Your task to perform on an android device: Check the news Image 0: 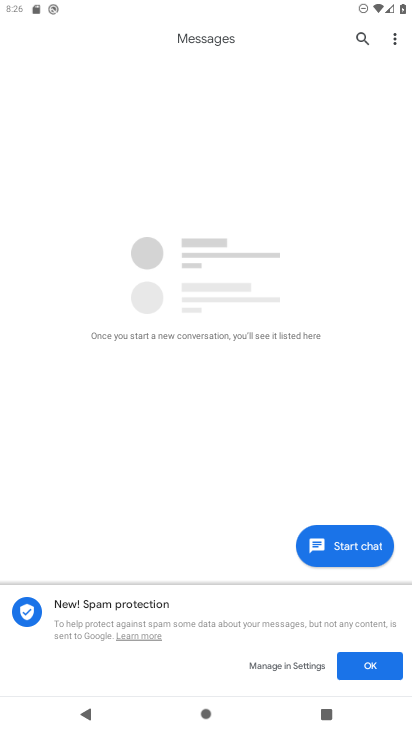
Step 0: press home button
Your task to perform on an android device: Check the news Image 1: 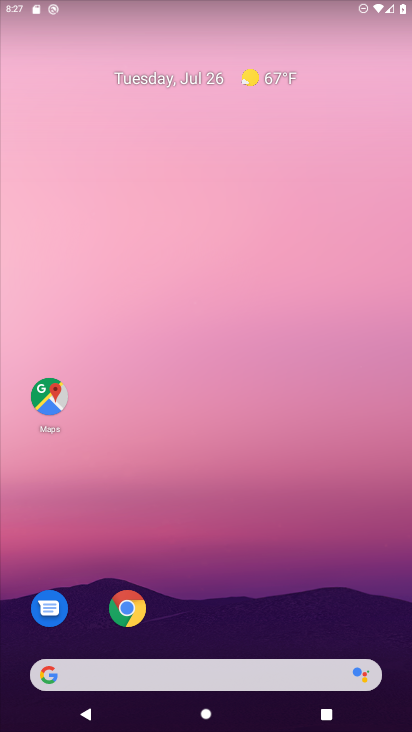
Step 1: click (136, 673)
Your task to perform on an android device: Check the news Image 2: 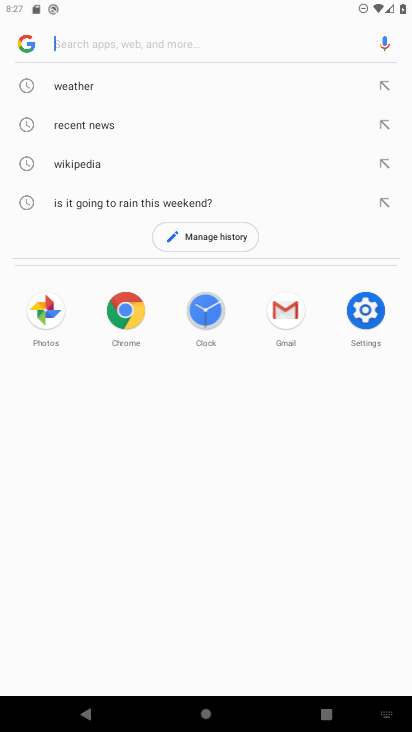
Step 2: type "news"
Your task to perform on an android device: Check the news Image 3: 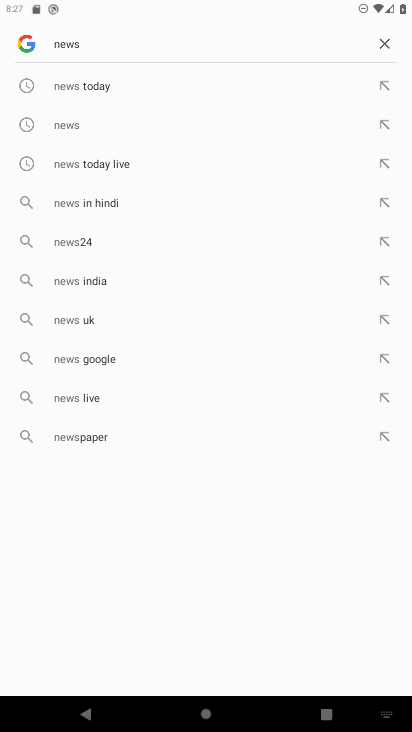
Step 3: click (84, 130)
Your task to perform on an android device: Check the news Image 4: 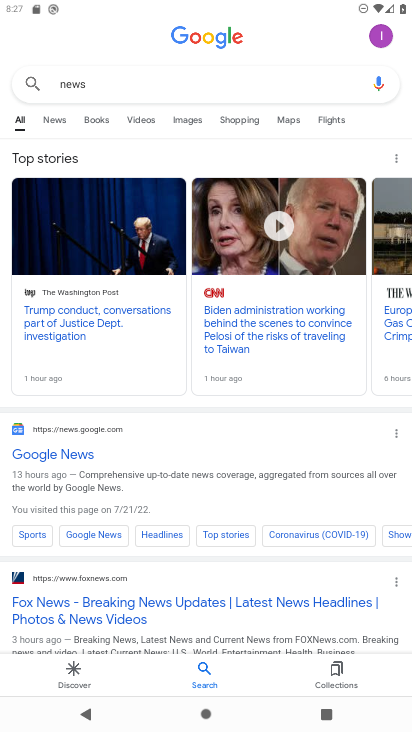
Step 4: task complete